Your task to perform on an android device: Open Google Maps Image 0: 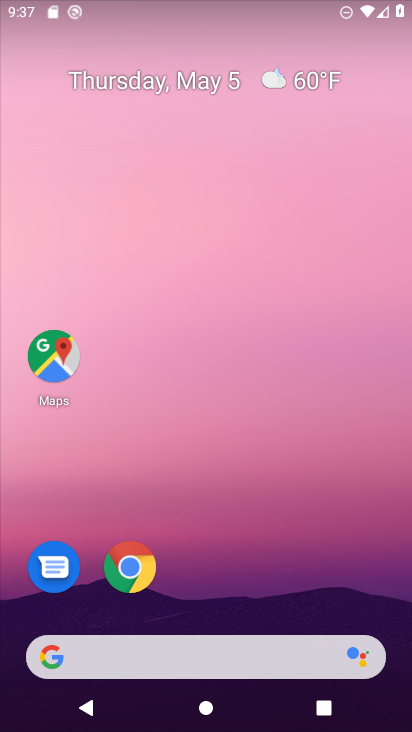
Step 0: drag from (199, 727) to (209, 99)
Your task to perform on an android device: Open Google Maps Image 1: 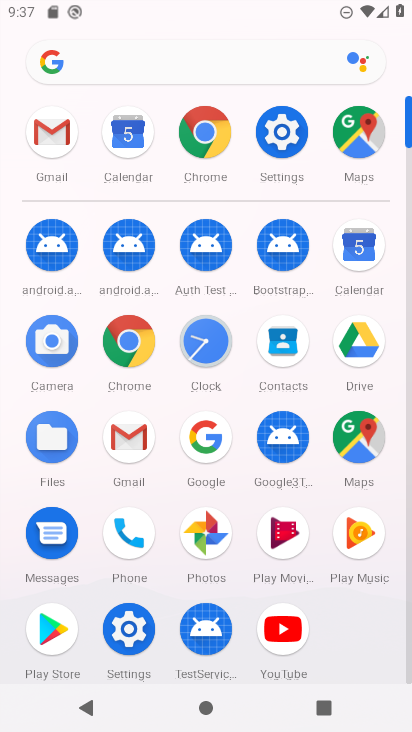
Step 1: click (359, 439)
Your task to perform on an android device: Open Google Maps Image 2: 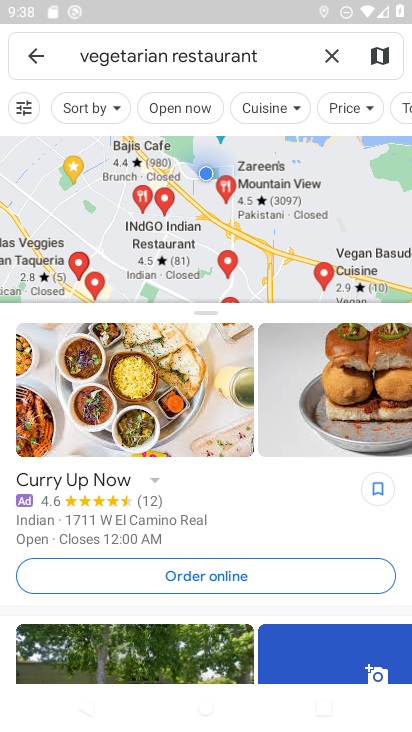
Step 2: task complete